Your task to perform on an android device: toggle sleep mode Image 0: 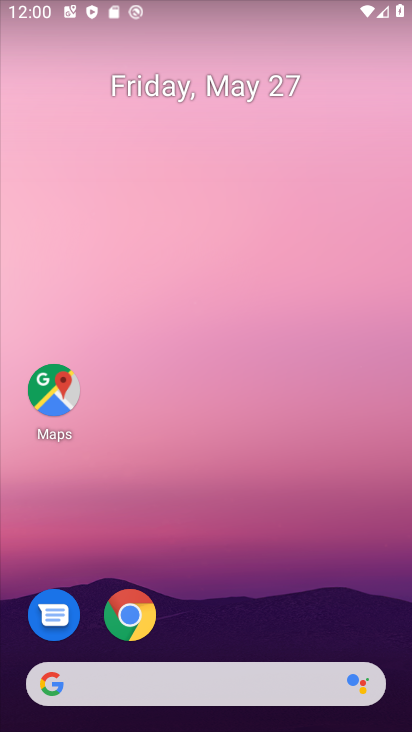
Step 0: drag from (355, 628) to (317, 178)
Your task to perform on an android device: toggle sleep mode Image 1: 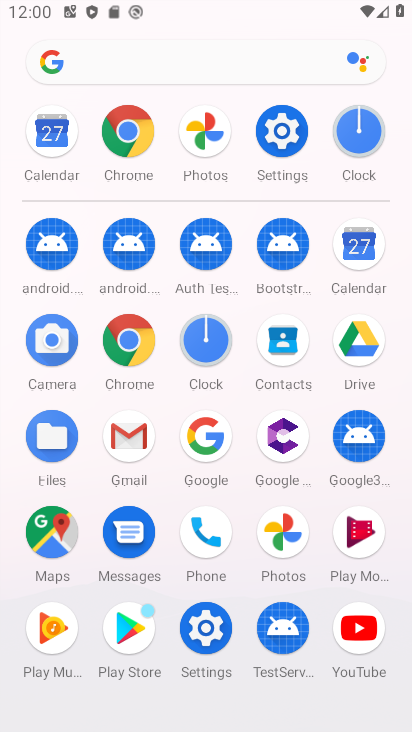
Step 1: click (276, 136)
Your task to perform on an android device: toggle sleep mode Image 2: 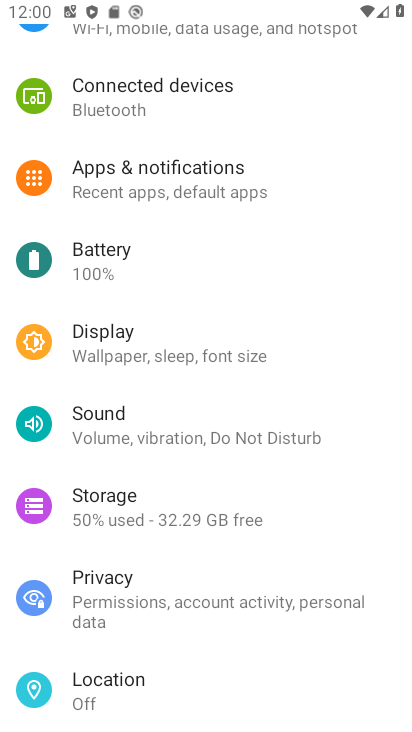
Step 2: click (213, 362)
Your task to perform on an android device: toggle sleep mode Image 3: 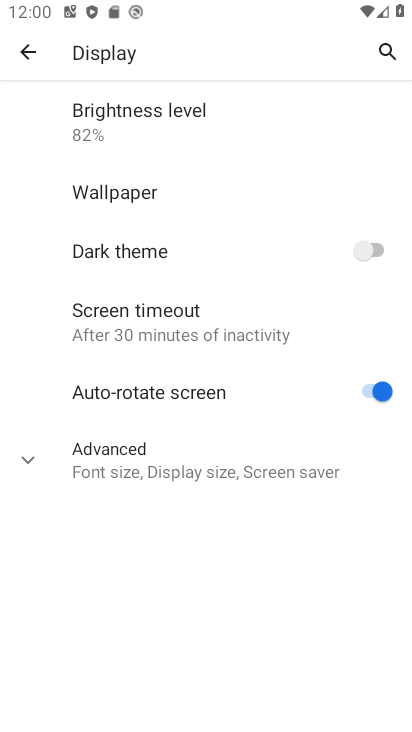
Step 3: task complete